Your task to perform on an android device: move a message to another label in the gmail app Image 0: 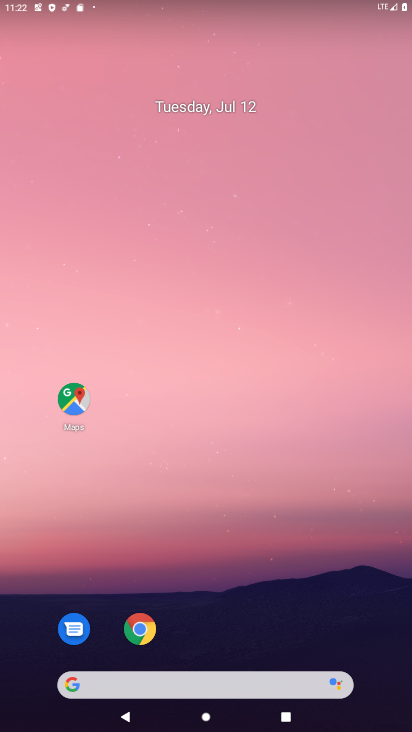
Step 0: drag from (227, 649) to (188, 14)
Your task to perform on an android device: move a message to another label in the gmail app Image 1: 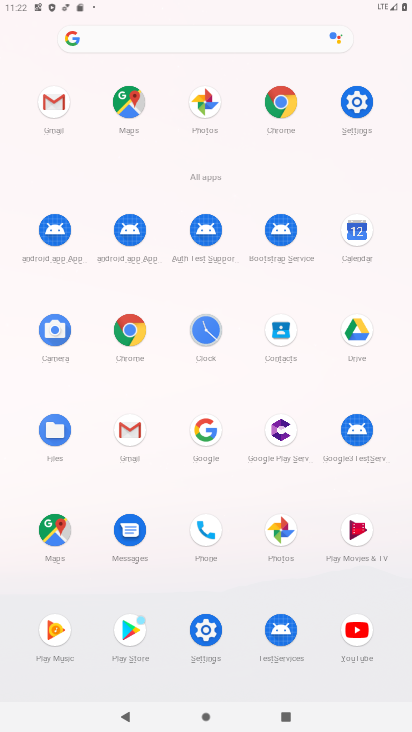
Step 1: click (129, 426)
Your task to perform on an android device: move a message to another label in the gmail app Image 2: 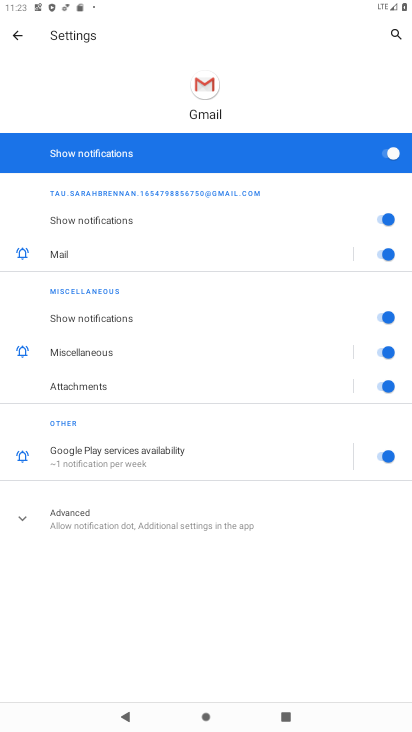
Step 2: press home button
Your task to perform on an android device: move a message to another label in the gmail app Image 3: 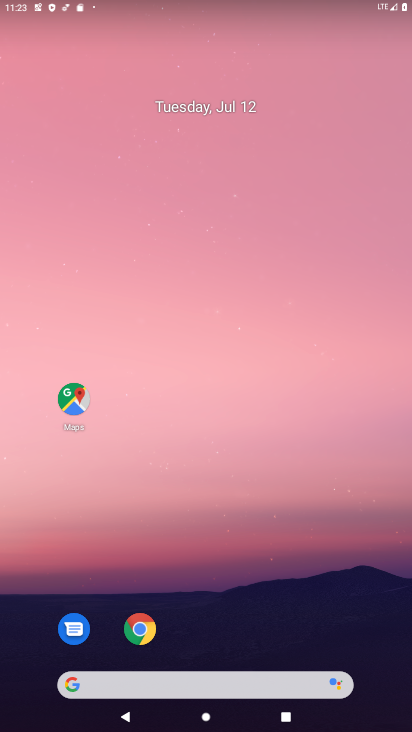
Step 3: drag from (230, 329) to (247, 91)
Your task to perform on an android device: move a message to another label in the gmail app Image 4: 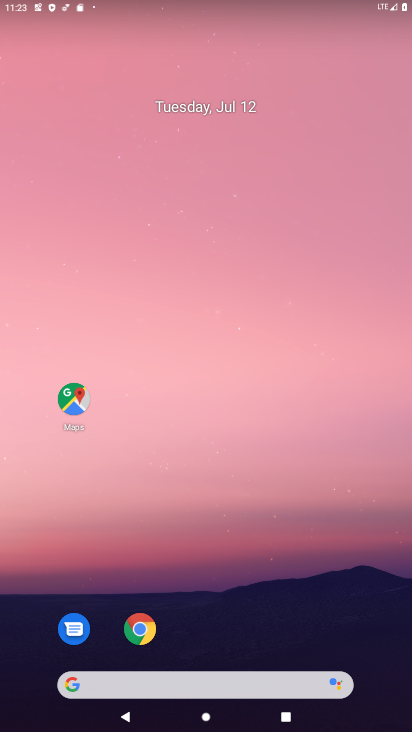
Step 4: drag from (210, 481) to (238, 214)
Your task to perform on an android device: move a message to another label in the gmail app Image 5: 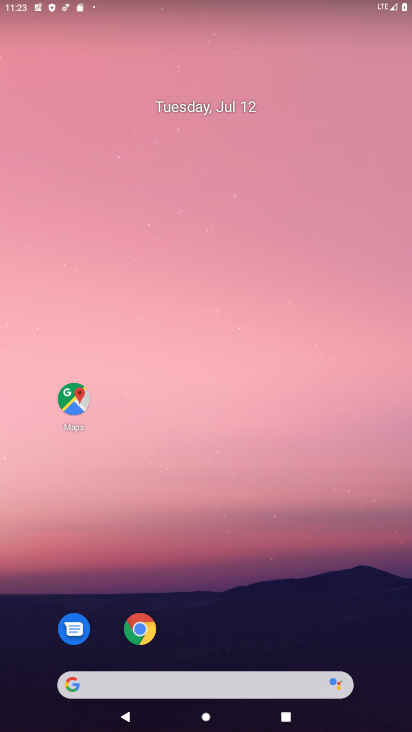
Step 5: drag from (219, 659) to (241, 156)
Your task to perform on an android device: move a message to another label in the gmail app Image 6: 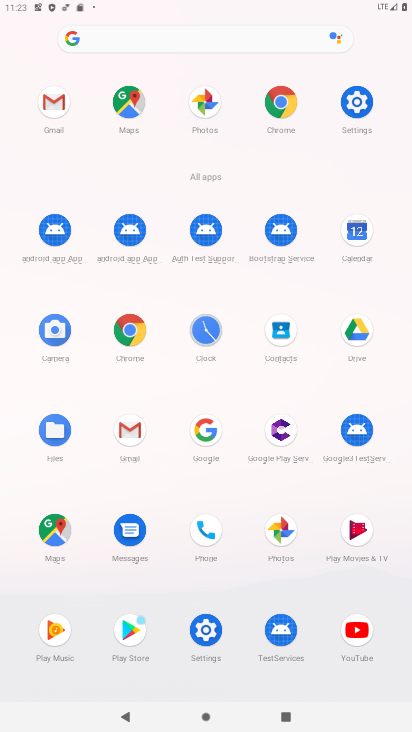
Step 6: click (54, 98)
Your task to perform on an android device: move a message to another label in the gmail app Image 7: 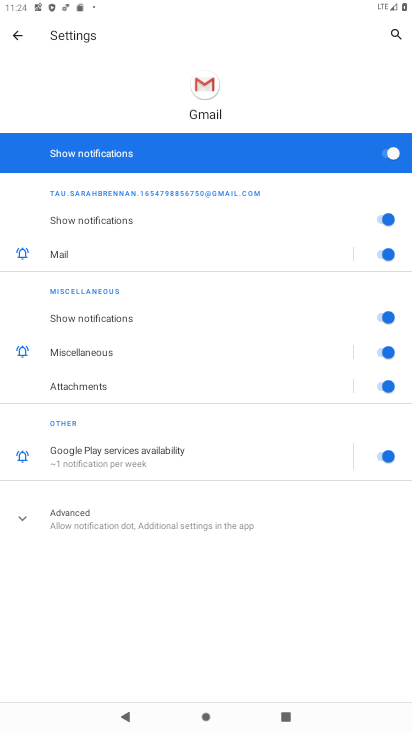
Step 7: click (12, 31)
Your task to perform on an android device: move a message to another label in the gmail app Image 8: 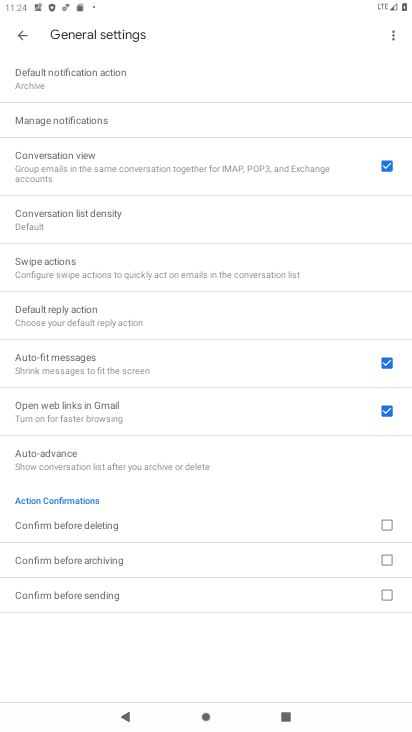
Step 8: click (35, 37)
Your task to perform on an android device: move a message to another label in the gmail app Image 9: 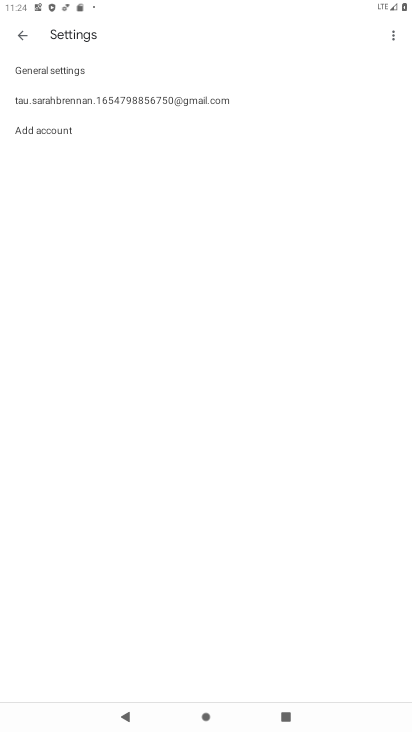
Step 9: click (18, 32)
Your task to perform on an android device: move a message to another label in the gmail app Image 10: 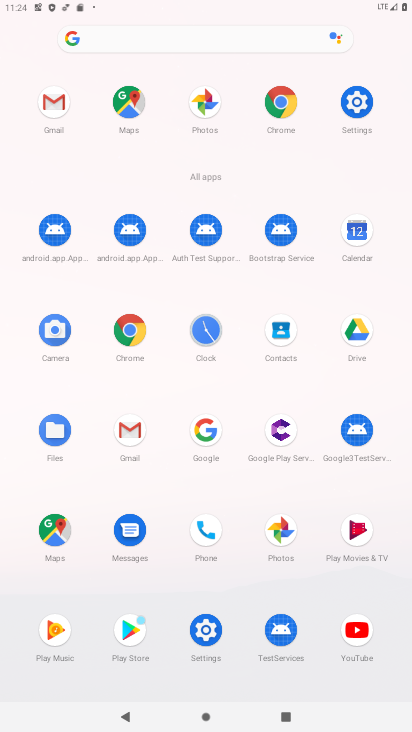
Step 10: click (47, 104)
Your task to perform on an android device: move a message to another label in the gmail app Image 11: 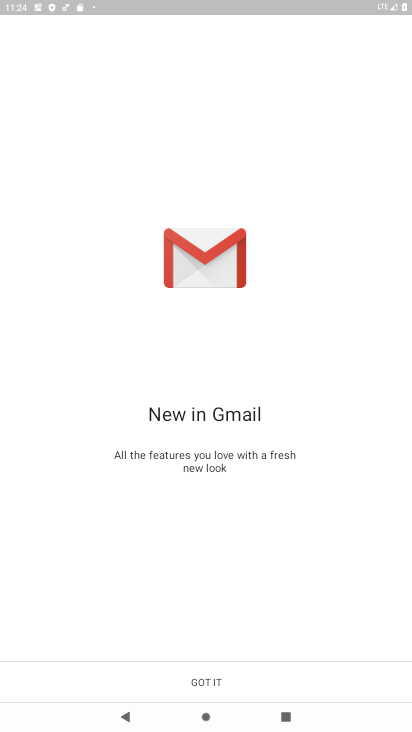
Step 11: click (224, 682)
Your task to perform on an android device: move a message to another label in the gmail app Image 12: 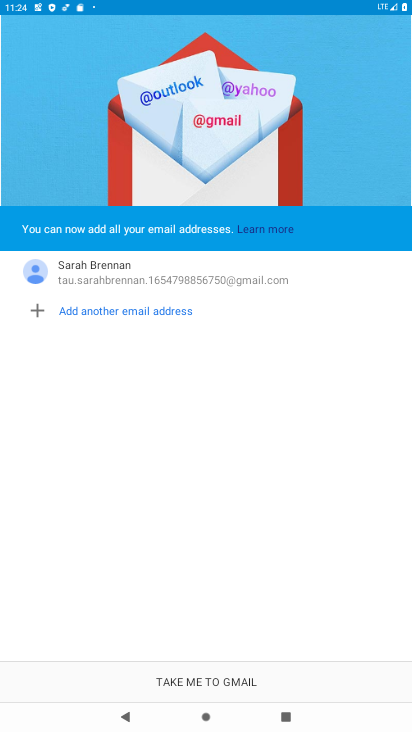
Step 12: click (226, 682)
Your task to perform on an android device: move a message to another label in the gmail app Image 13: 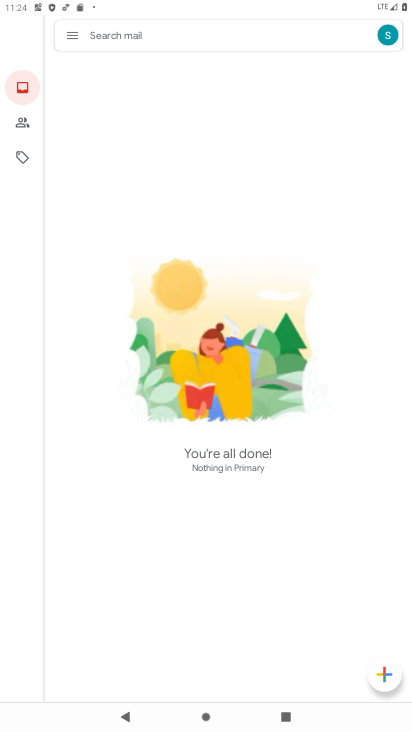
Step 13: task complete